Your task to perform on an android device: search for starred emails in the gmail app Image 0: 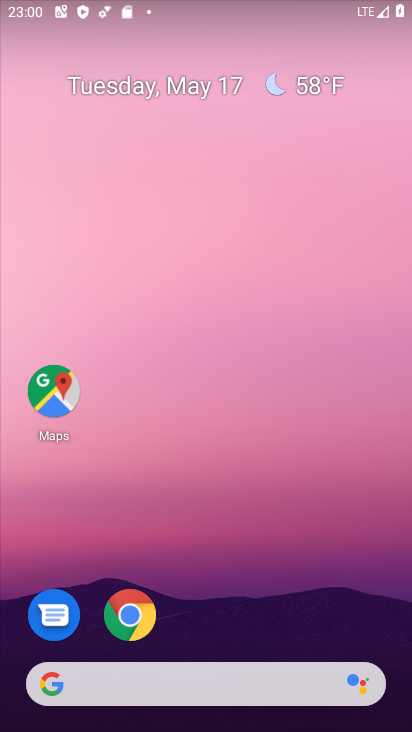
Step 0: drag from (211, 621) to (198, 217)
Your task to perform on an android device: search for starred emails in the gmail app Image 1: 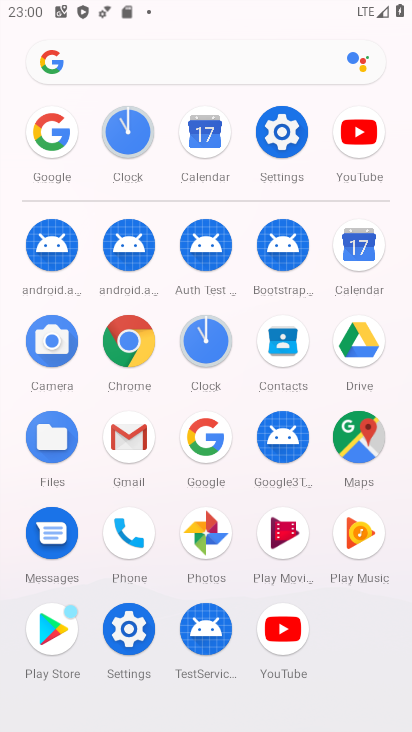
Step 1: click (133, 446)
Your task to perform on an android device: search for starred emails in the gmail app Image 2: 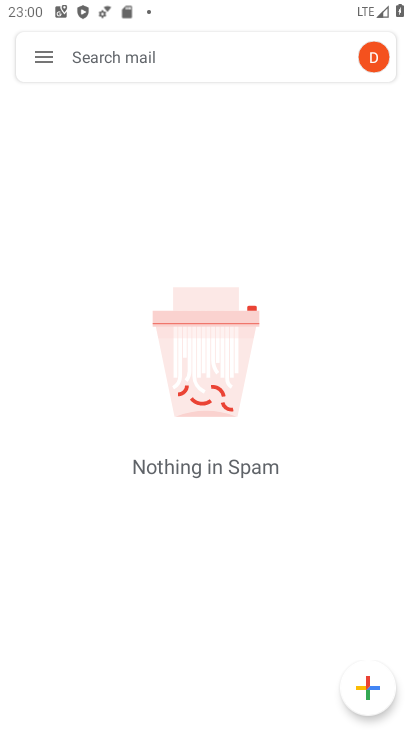
Step 2: click (42, 65)
Your task to perform on an android device: search for starred emails in the gmail app Image 3: 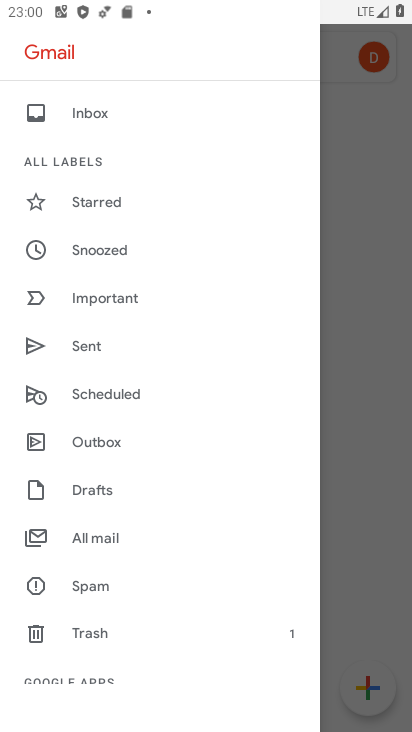
Step 3: click (115, 190)
Your task to perform on an android device: search for starred emails in the gmail app Image 4: 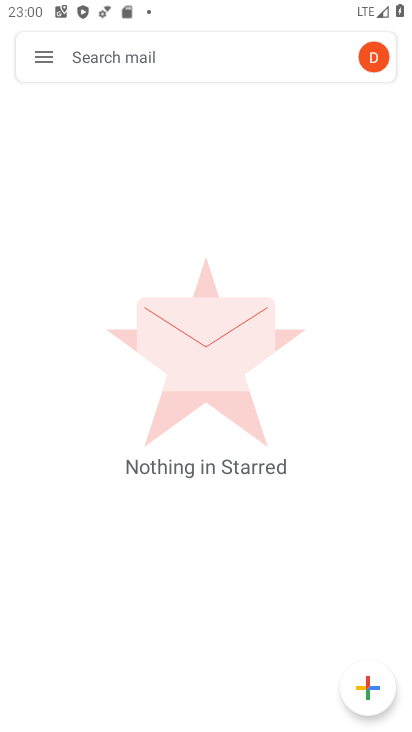
Step 4: task complete